Your task to perform on an android device: toggle show notifications on the lock screen Image 0: 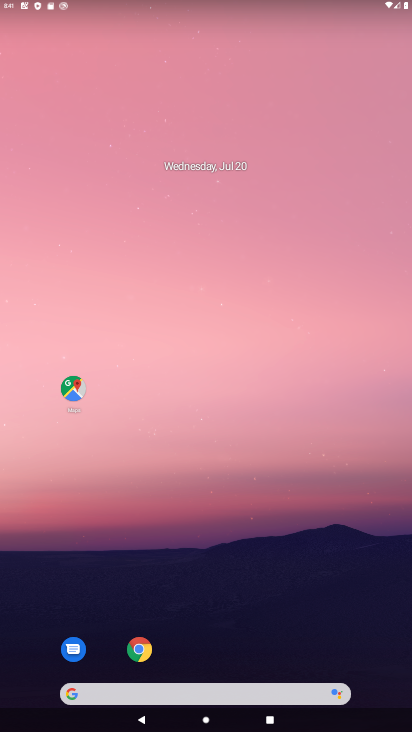
Step 0: drag from (238, 640) to (201, 19)
Your task to perform on an android device: toggle show notifications on the lock screen Image 1: 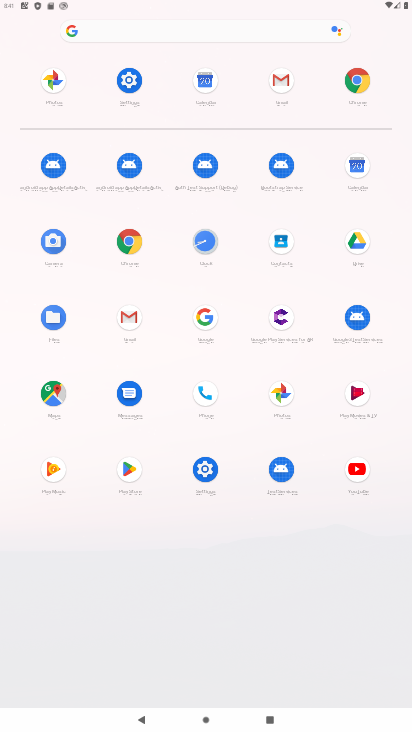
Step 1: click (123, 83)
Your task to perform on an android device: toggle show notifications on the lock screen Image 2: 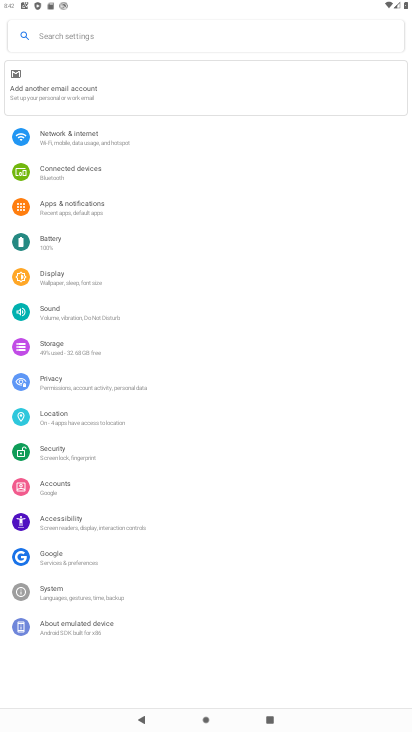
Step 2: click (87, 202)
Your task to perform on an android device: toggle show notifications on the lock screen Image 3: 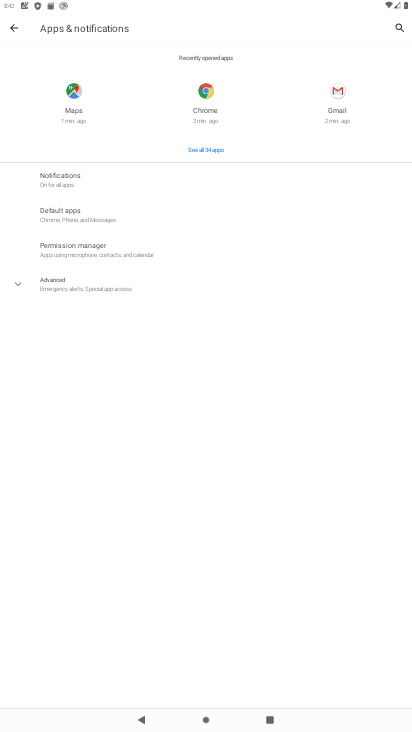
Step 3: click (100, 181)
Your task to perform on an android device: toggle show notifications on the lock screen Image 4: 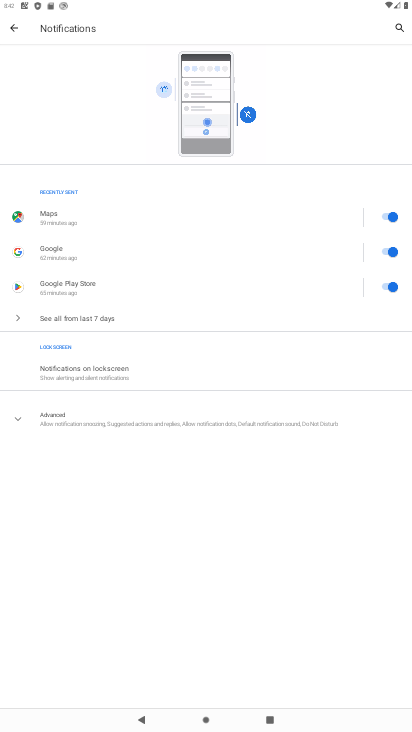
Step 4: click (214, 371)
Your task to perform on an android device: toggle show notifications on the lock screen Image 5: 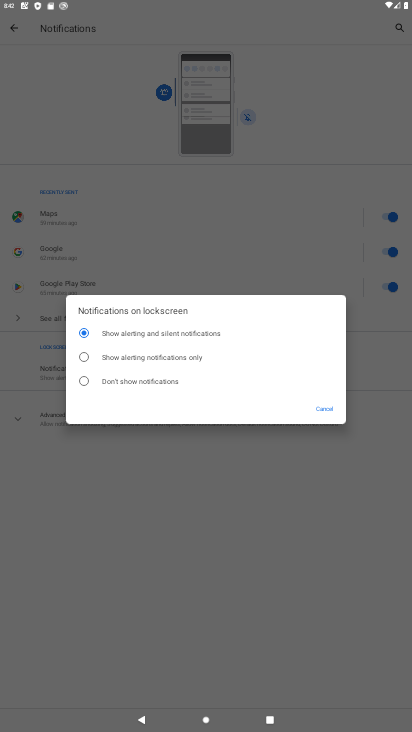
Step 5: click (177, 360)
Your task to perform on an android device: toggle show notifications on the lock screen Image 6: 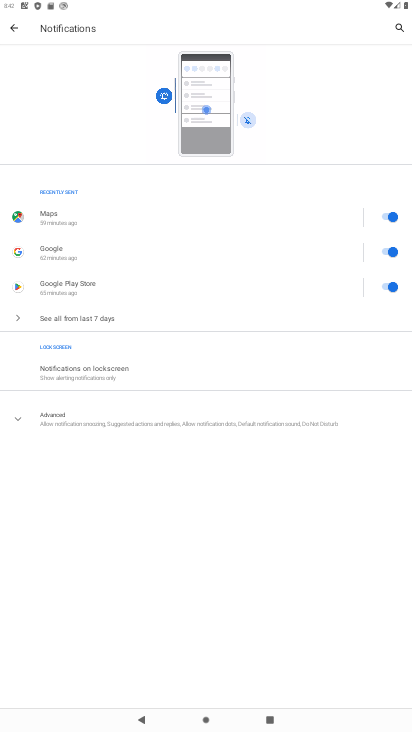
Step 6: task complete